Your task to perform on an android device: Go to privacy settings Image 0: 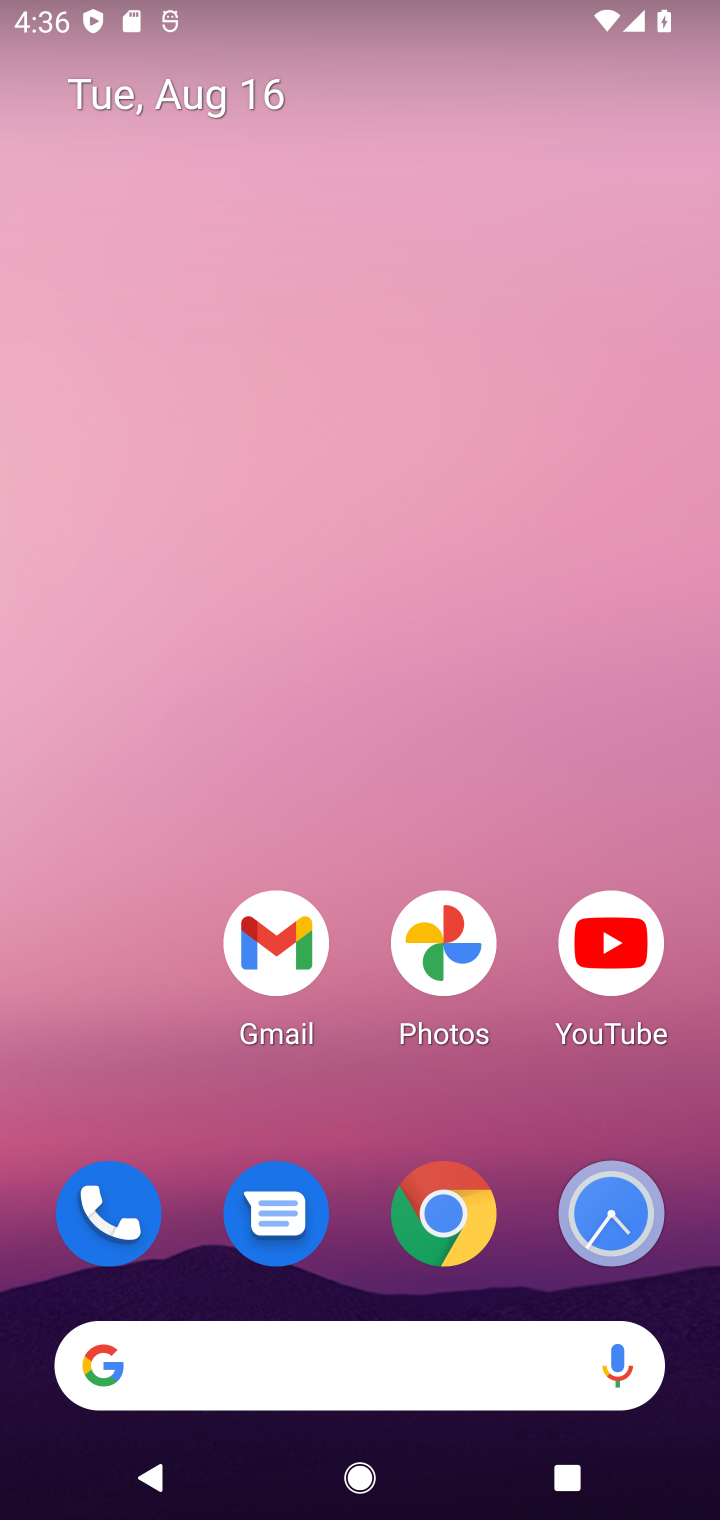
Step 0: drag from (374, 435) to (386, 102)
Your task to perform on an android device: Go to privacy settings Image 1: 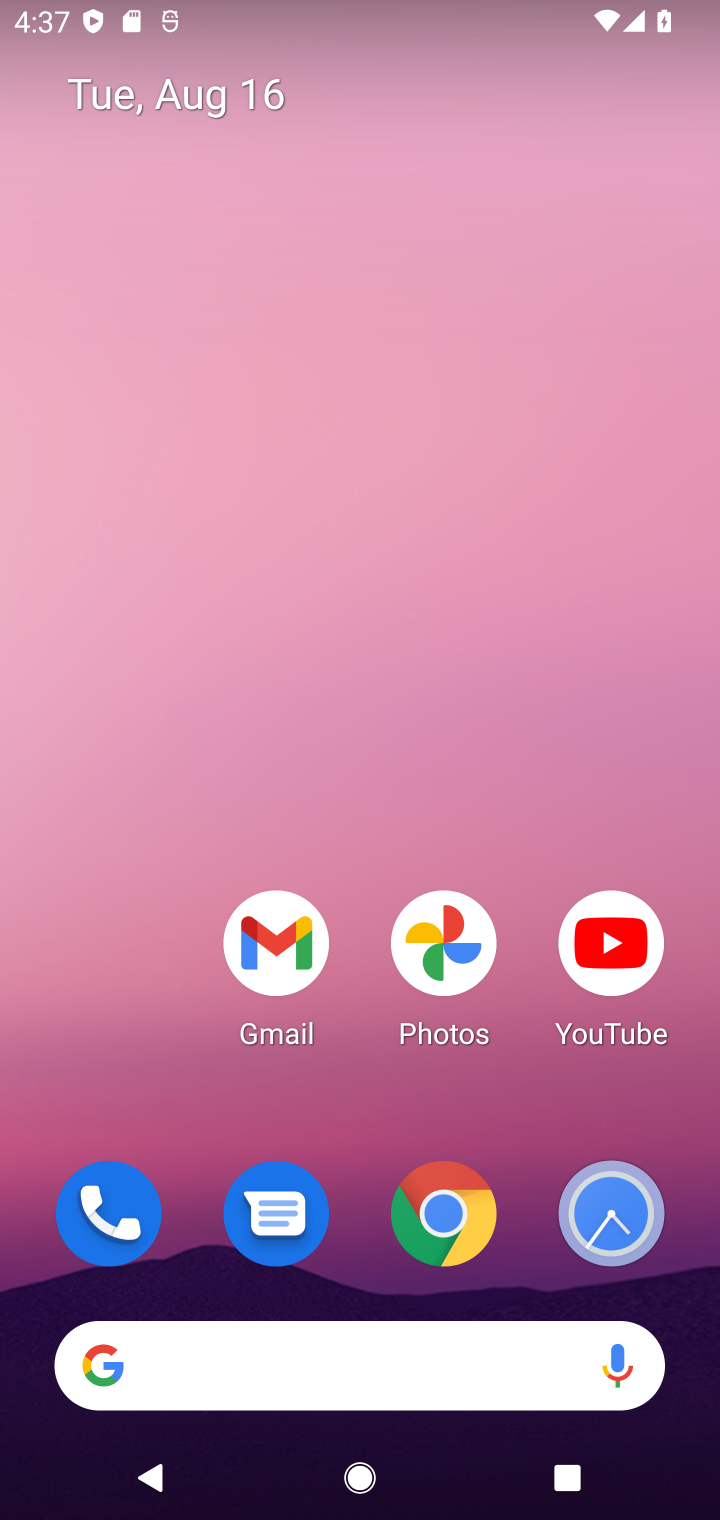
Step 1: drag from (334, 1084) to (483, 9)
Your task to perform on an android device: Go to privacy settings Image 2: 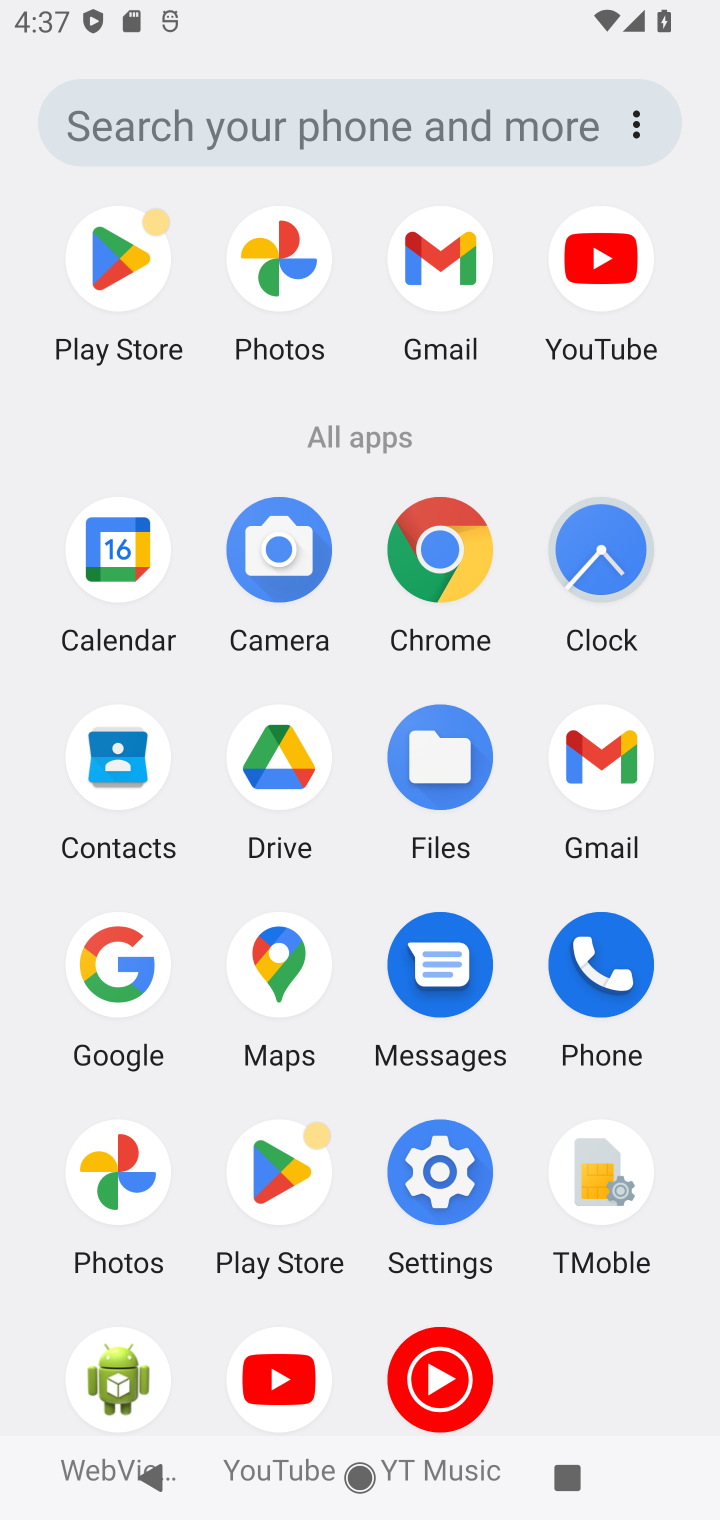
Step 2: click (420, 1182)
Your task to perform on an android device: Go to privacy settings Image 3: 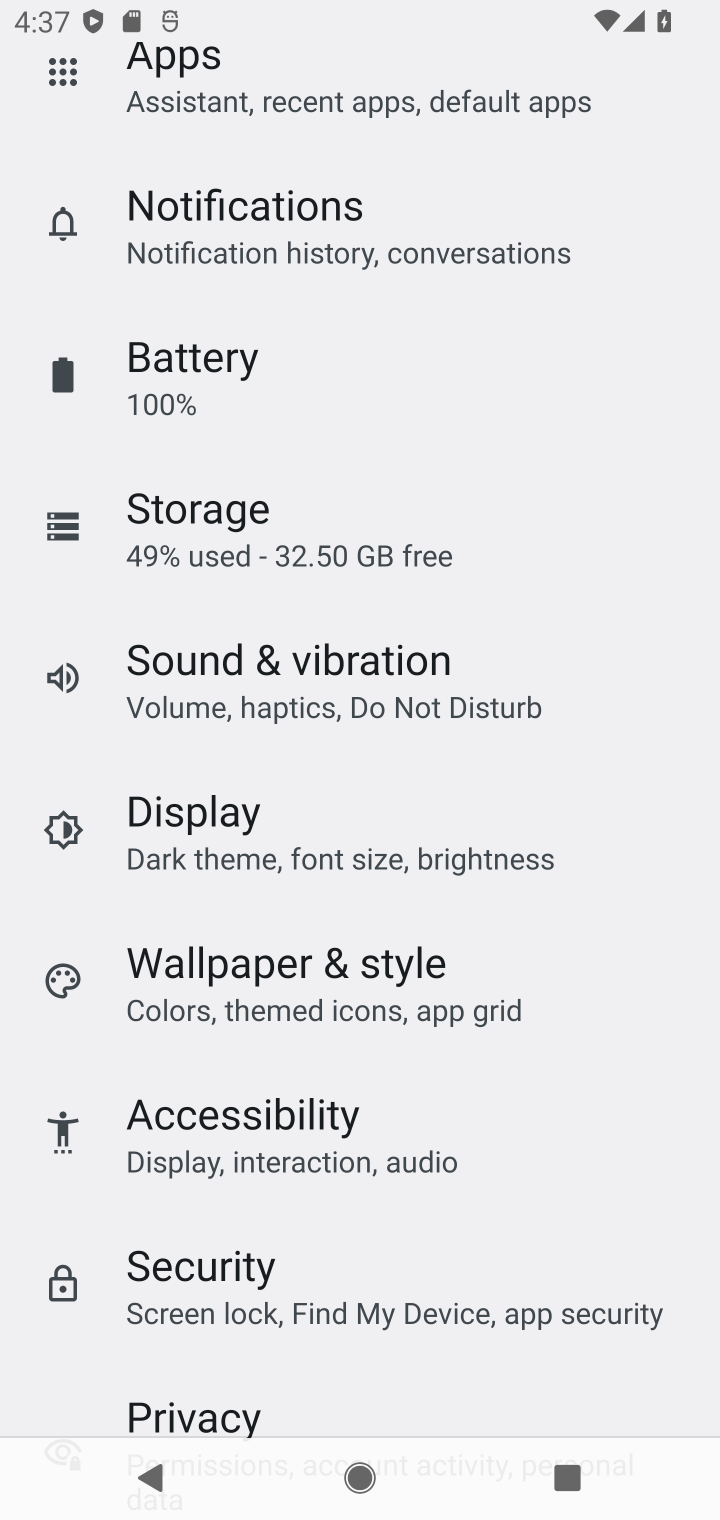
Step 3: click (209, 1397)
Your task to perform on an android device: Go to privacy settings Image 4: 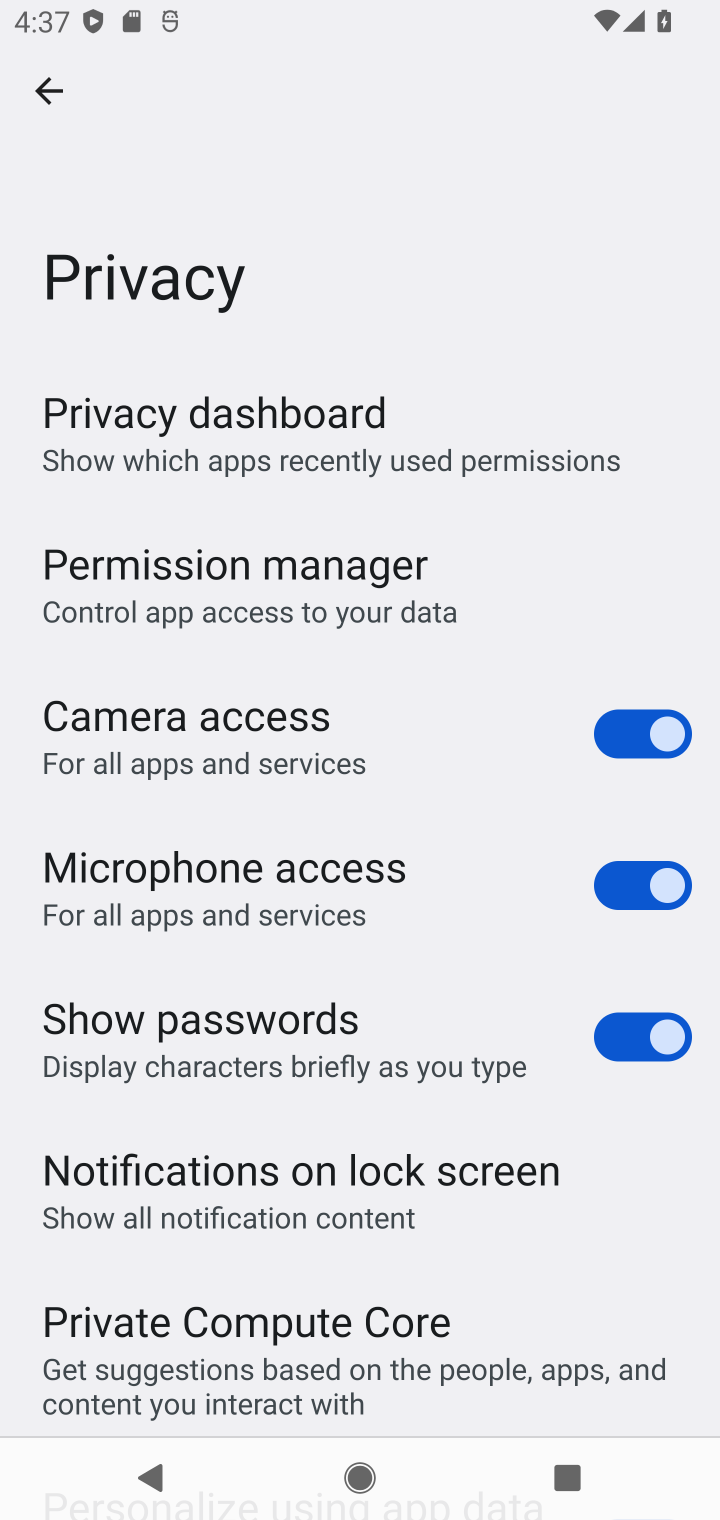
Step 4: task complete